Your task to perform on an android device: open chrome and create a bookmark for the current page Image 0: 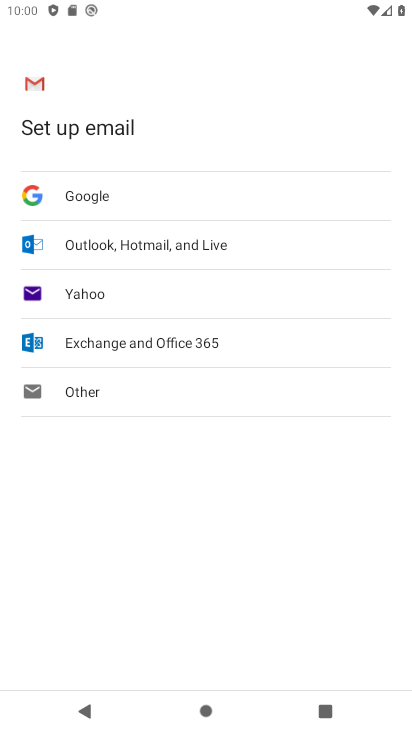
Step 0: press home button
Your task to perform on an android device: open chrome and create a bookmark for the current page Image 1: 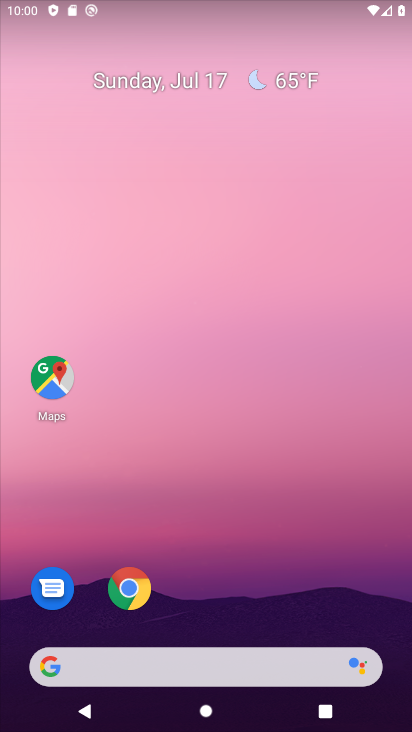
Step 1: click (123, 590)
Your task to perform on an android device: open chrome and create a bookmark for the current page Image 2: 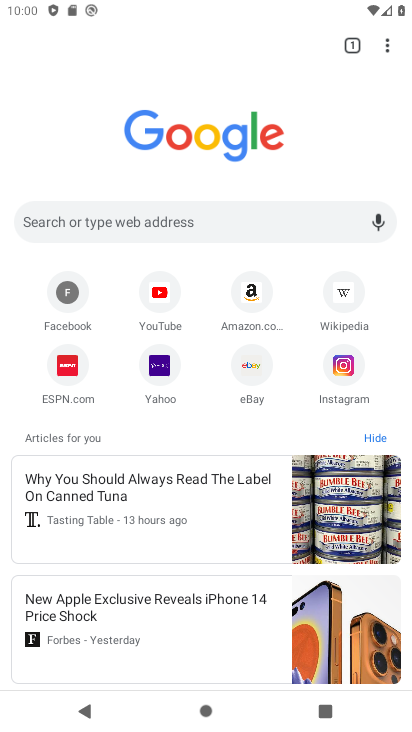
Step 2: click (385, 45)
Your task to perform on an android device: open chrome and create a bookmark for the current page Image 3: 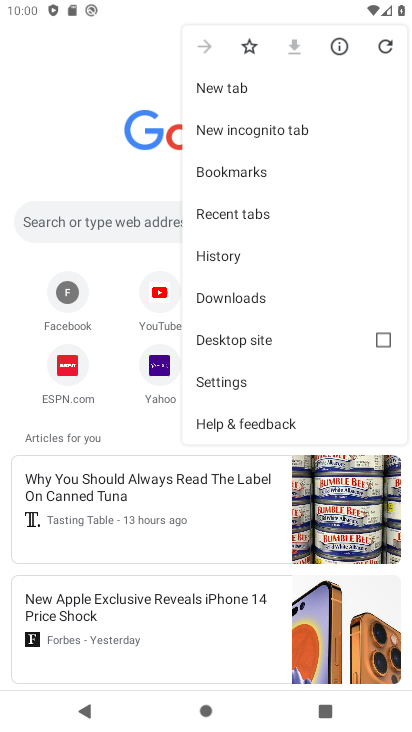
Step 3: click (247, 40)
Your task to perform on an android device: open chrome and create a bookmark for the current page Image 4: 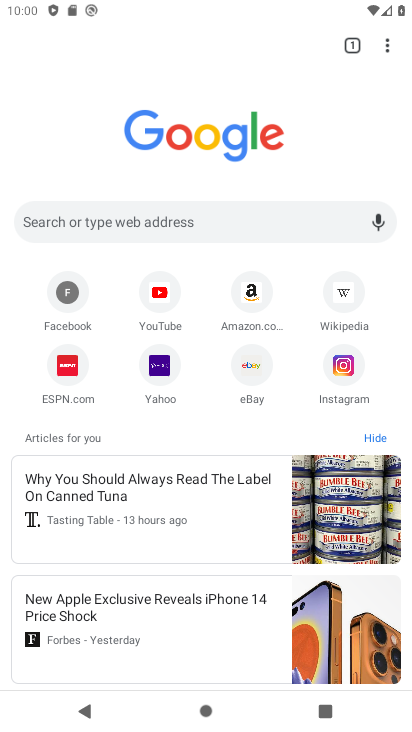
Step 4: task complete